Your task to perform on an android device: Show me popular games on the Play Store Image 0: 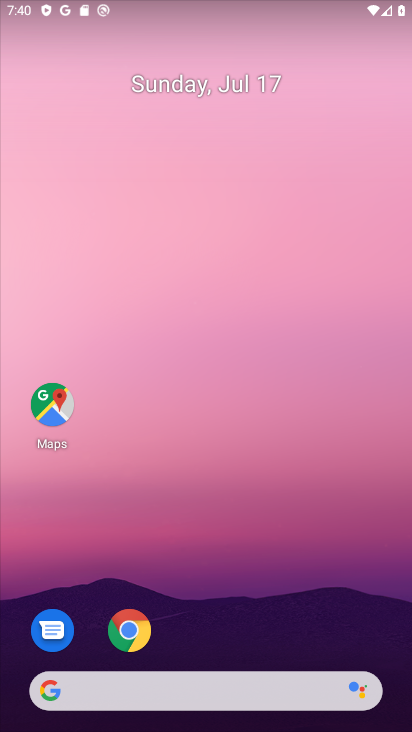
Step 0: drag from (203, 463) to (203, 125)
Your task to perform on an android device: Show me popular games on the Play Store Image 1: 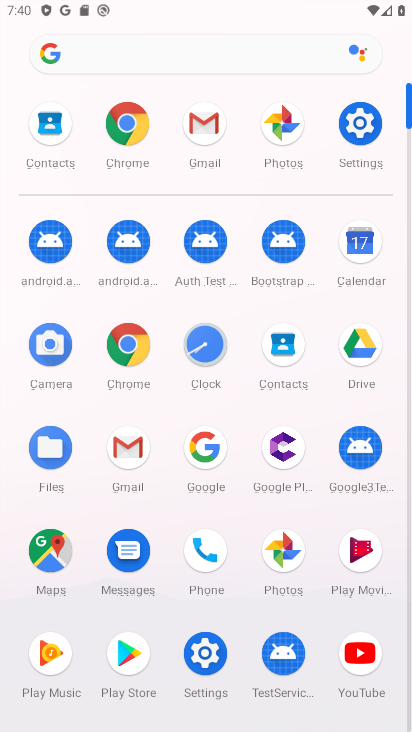
Step 1: click (133, 667)
Your task to perform on an android device: Show me popular games on the Play Store Image 2: 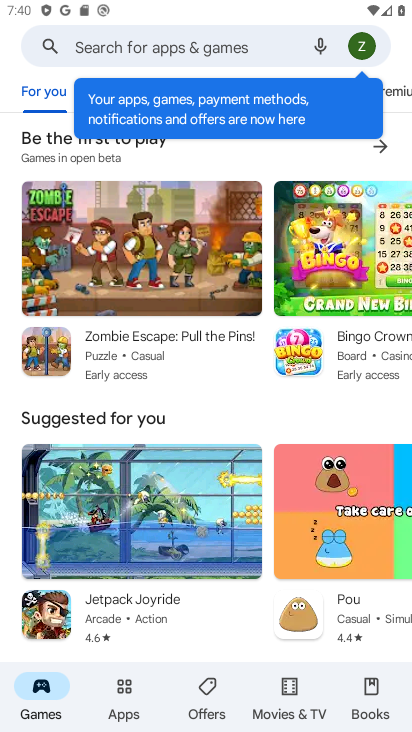
Step 2: task complete